Your task to perform on an android device: clear all cookies in the chrome app Image 0: 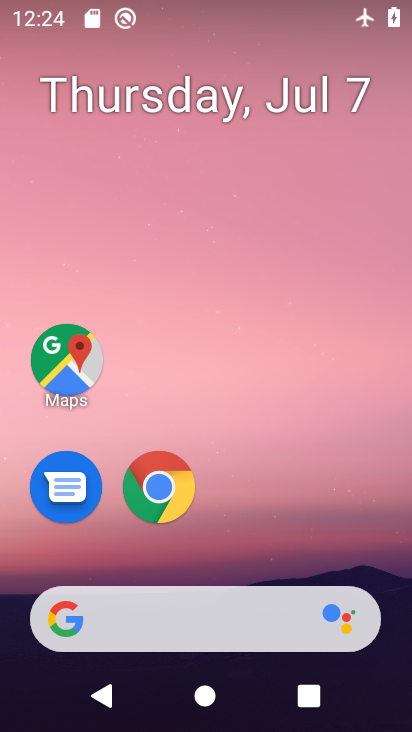
Step 0: drag from (357, 557) to (369, 161)
Your task to perform on an android device: clear all cookies in the chrome app Image 1: 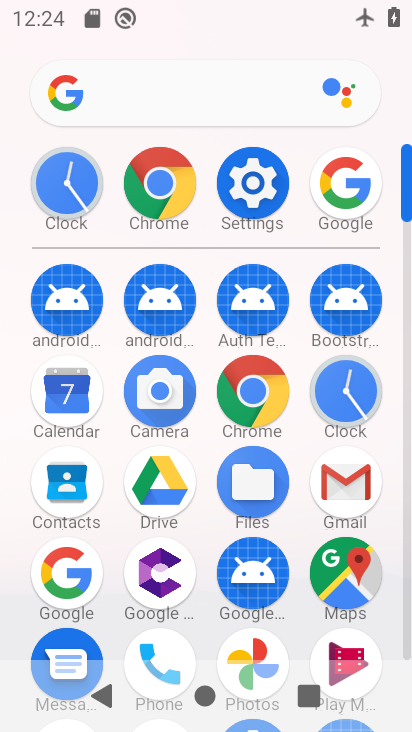
Step 1: click (254, 388)
Your task to perform on an android device: clear all cookies in the chrome app Image 2: 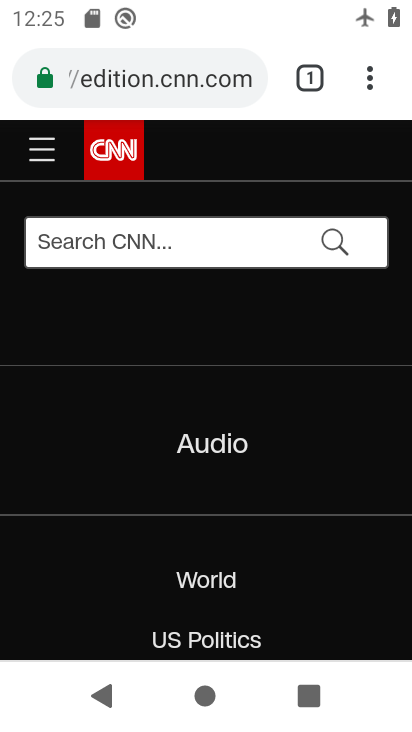
Step 2: click (369, 84)
Your task to perform on an android device: clear all cookies in the chrome app Image 3: 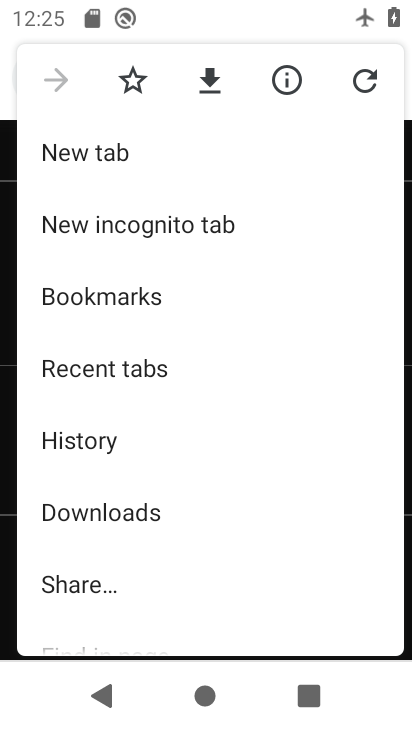
Step 3: drag from (304, 445) to (314, 307)
Your task to perform on an android device: clear all cookies in the chrome app Image 4: 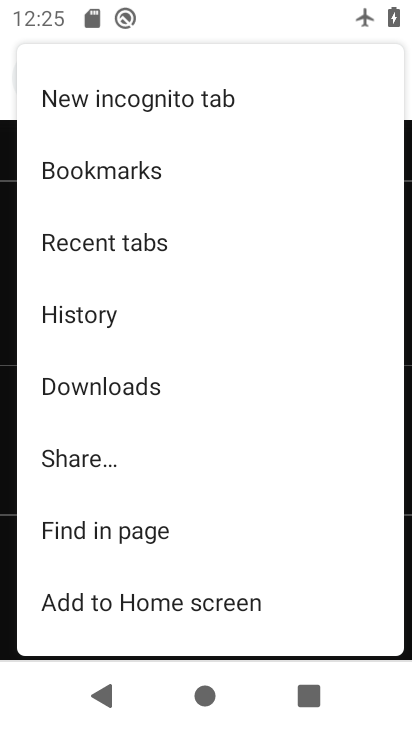
Step 4: drag from (296, 476) to (305, 363)
Your task to perform on an android device: clear all cookies in the chrome app Image 5: 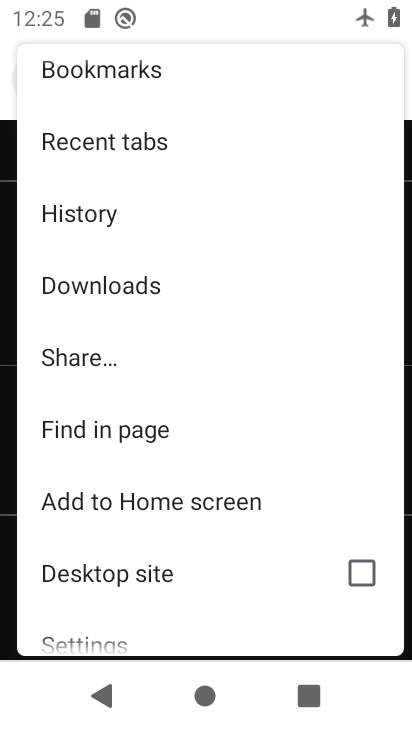
Step 5: drag from (275, 542) to (281, 415)
Your task to perform on an android device: clear all cookies in the chrome app Image 6: 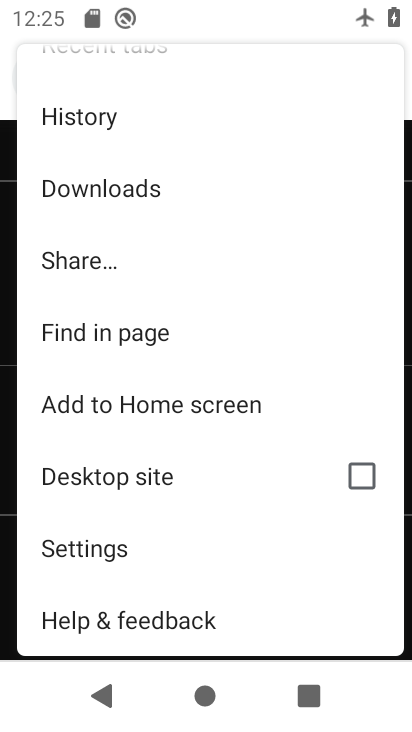
Step 6: drag from (268, 538) to (265, 383)
Your task to perform on an android device: clear all cookies in the chrome app Image 7: 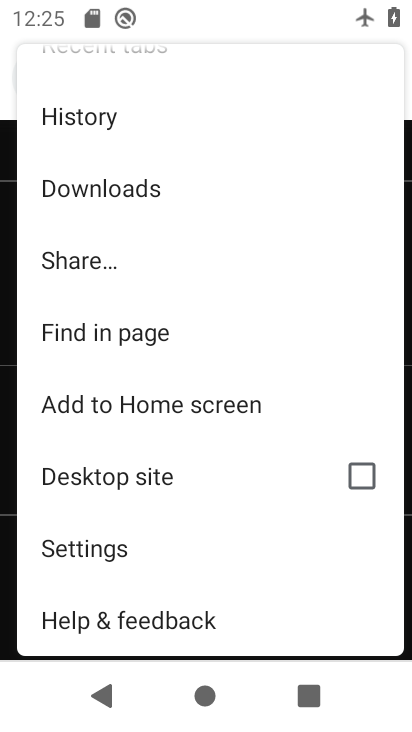
Step 7: click (214, 560)
Your task to perform on an android device: clear all cookies in the chrome app Image 8: 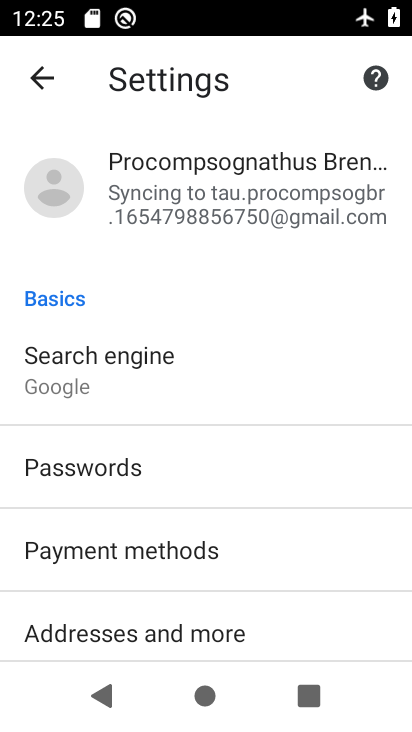
Step 8: drag from (305, 504) to (310, 382)
Your task to perform on an android device: clear all cookies in the chrome app Image 9: 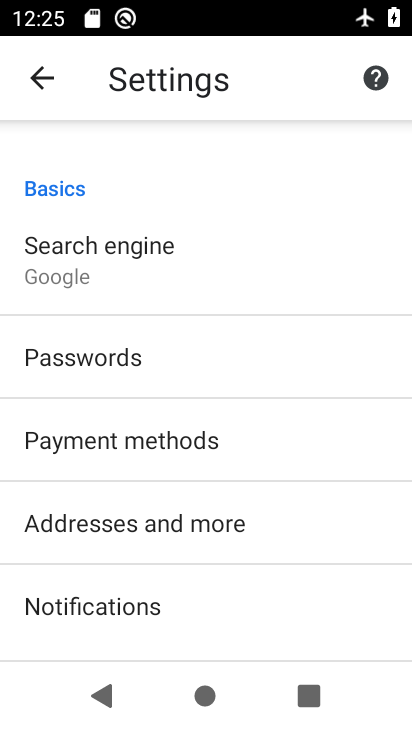
Step 9: drag from (304, 566) to (299, 429)
Your task to perform on an android device: clear all cookies in the chrome app Image 10: 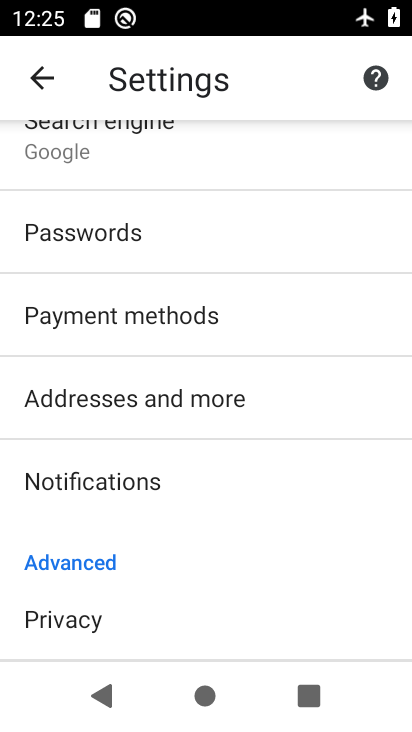
Step 10: drag from (368, 572) to (375, 428)
Your task to perform on an android device: clear all cookies in the chrome app Image 11: 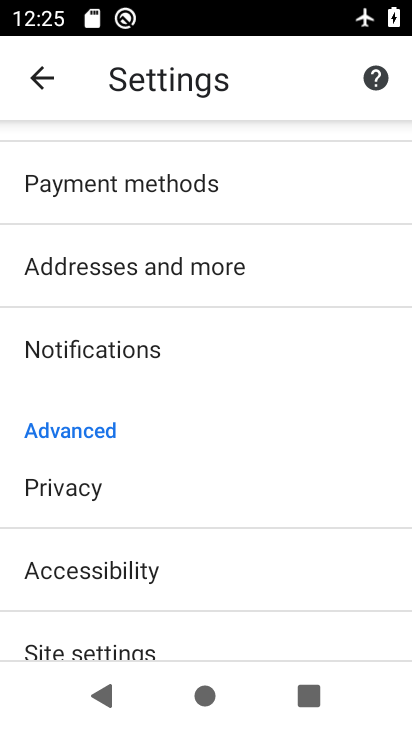
Step 11: drag from (323, 573) to (324, 449)
Your task to perform on an android device: clear all cookies in the chrome app Image 12: 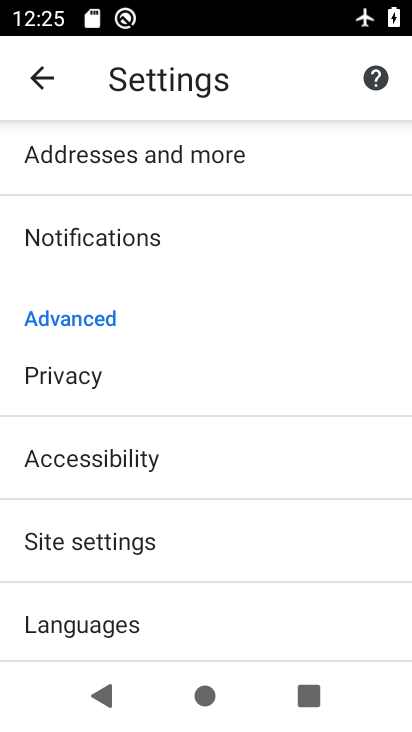
Step 12: drag from (341, 595) to (342, 485)
Your task to perform on an android device: clear all cookies in the chrome app Image 13: 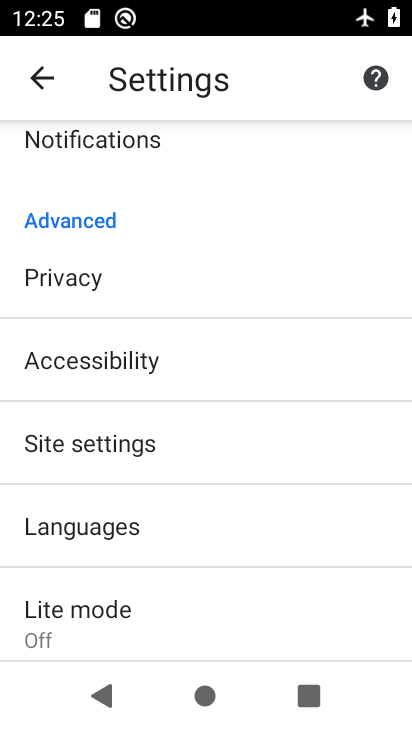
Step 13: click (159, 273)
Your task to perform on an android device: clear all cookies in the chrome app Image 14: 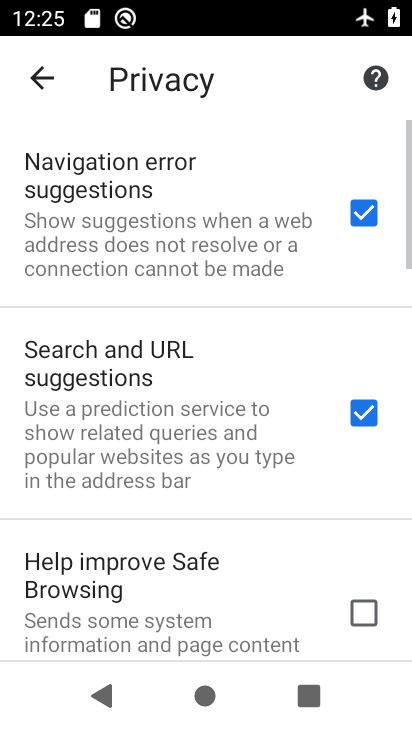
Step 14: drag from (302, 555) to (296, 380)
Your task to perform on an android device: clear all cookies in the chrome app Image 15: 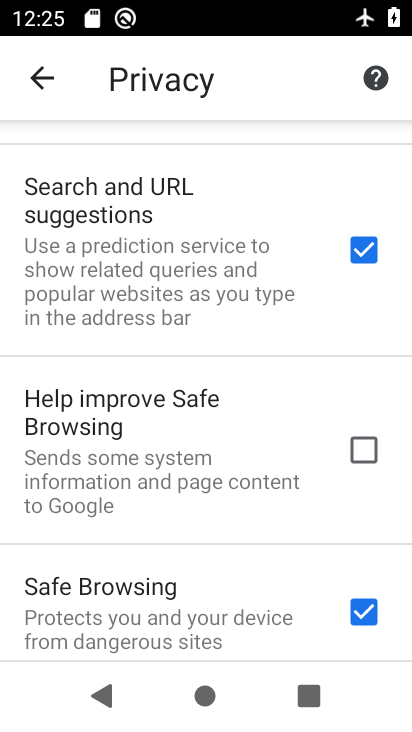
Step 15: drag from (297, 582) to (296, 433)
Your task to perform on an android device: clear all cookies in the chrome app Image 16: 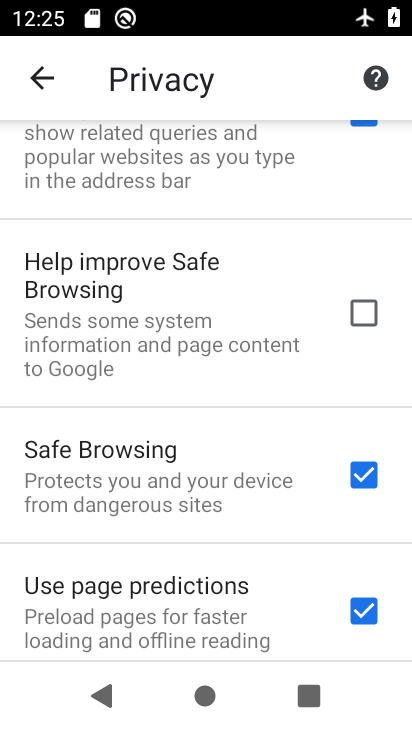
Step 16: drag from (296, 607) to (292, 437)
Your task to perform on an android device: clear all cookies in the chrome app Image 17: 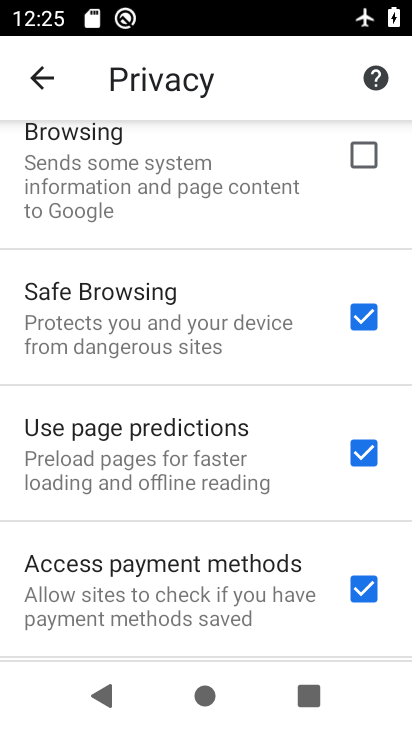
Step 17: drag from (311, 630) to (316, 487)
Your task to perform on an android device: clear all cookies in the chrome app Image 18: 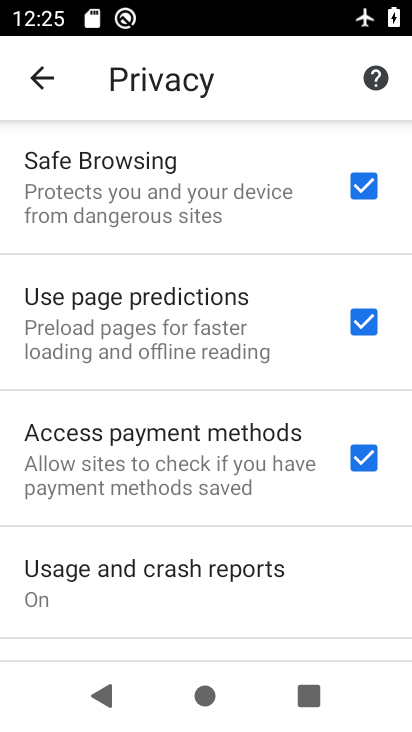
Step 18: drag from (307, 608) to (302, 466)
Your task to perform on an android device: clear all cookies in the chrome app Image 19: 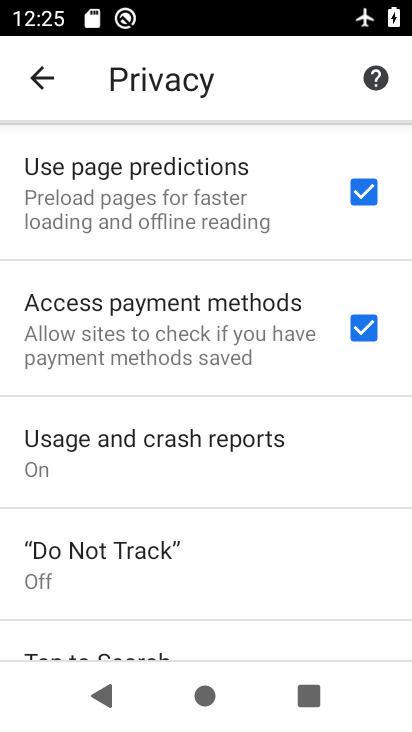
Step 19: drag from (293, 571) to (291, 453)
Your task to perform on an android device: clear all cookies in the chrome app Image 20: 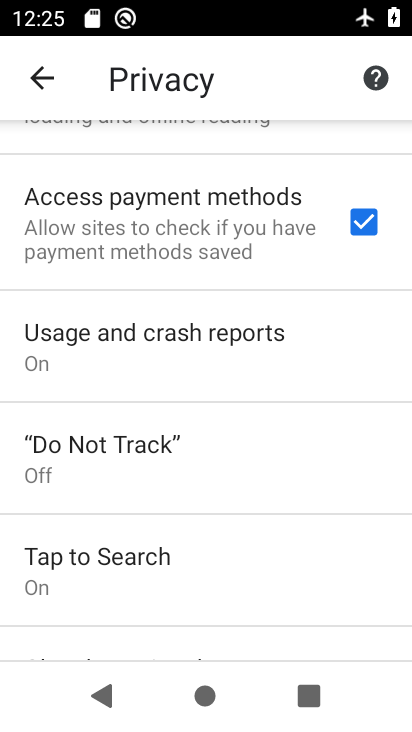
Step 20: drag from (313, 578) to (304, 440)
Your task to perform on an android device: clear all cookies in the chrome app Image 21: 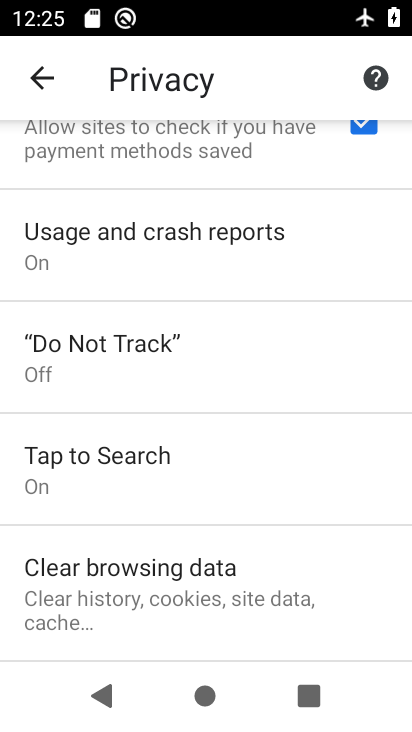
Step 21: click (233, 592)
Your task to perform on an android device: clear all cookies in the chrome app Image 22: 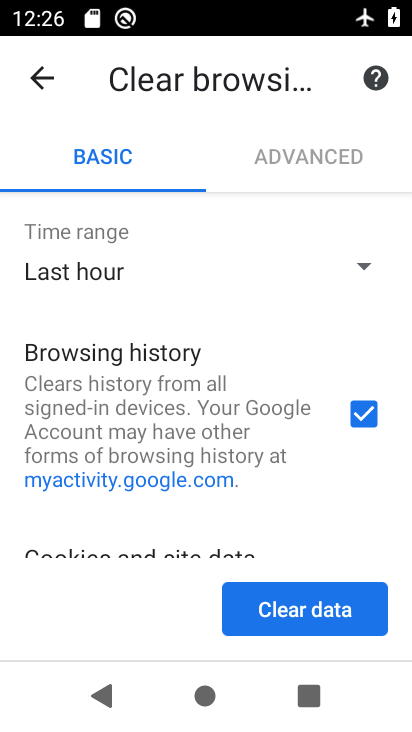
Step 22: drag from (282, 491) to (269, 313)
Your task to perform on an android device: clear all cookies in the chrome app Image 23: 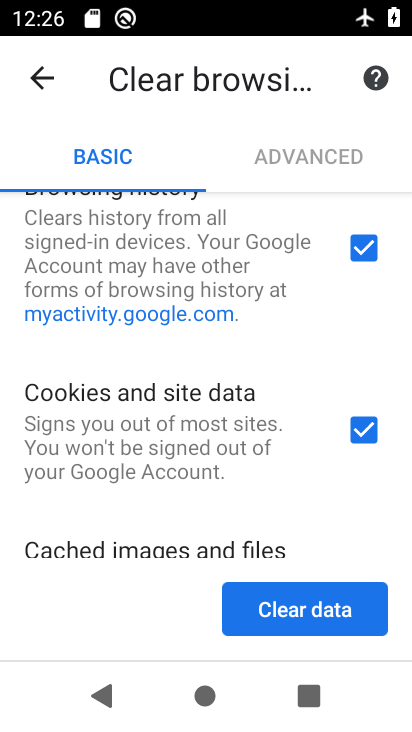
Step 23: click (284, 619)
Your task to perform on an android device: clear all cookies in the chrome app Image 24: 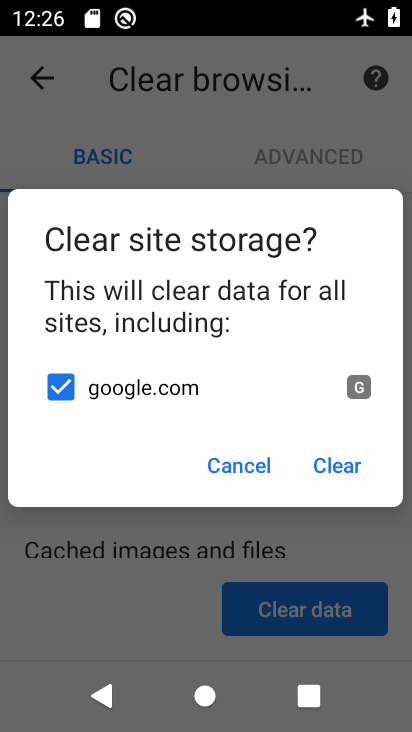
Step 24: click (338, 460)
Your task to perform on an android device: clear all cookies in the chrome app Image 25: 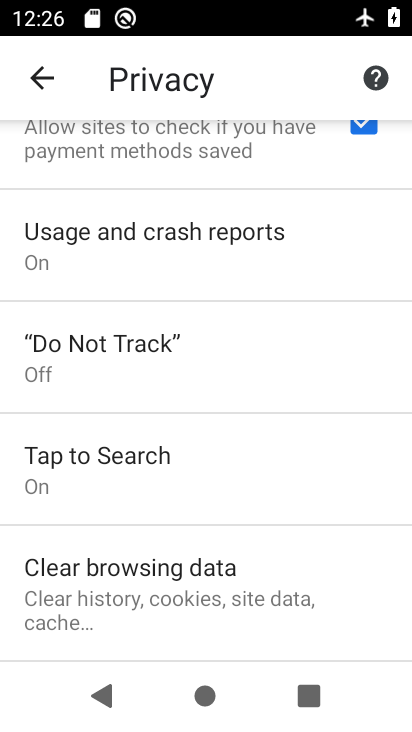
Step 25: task complete